Your task to perform on an android device: toggle wifi Image 0: 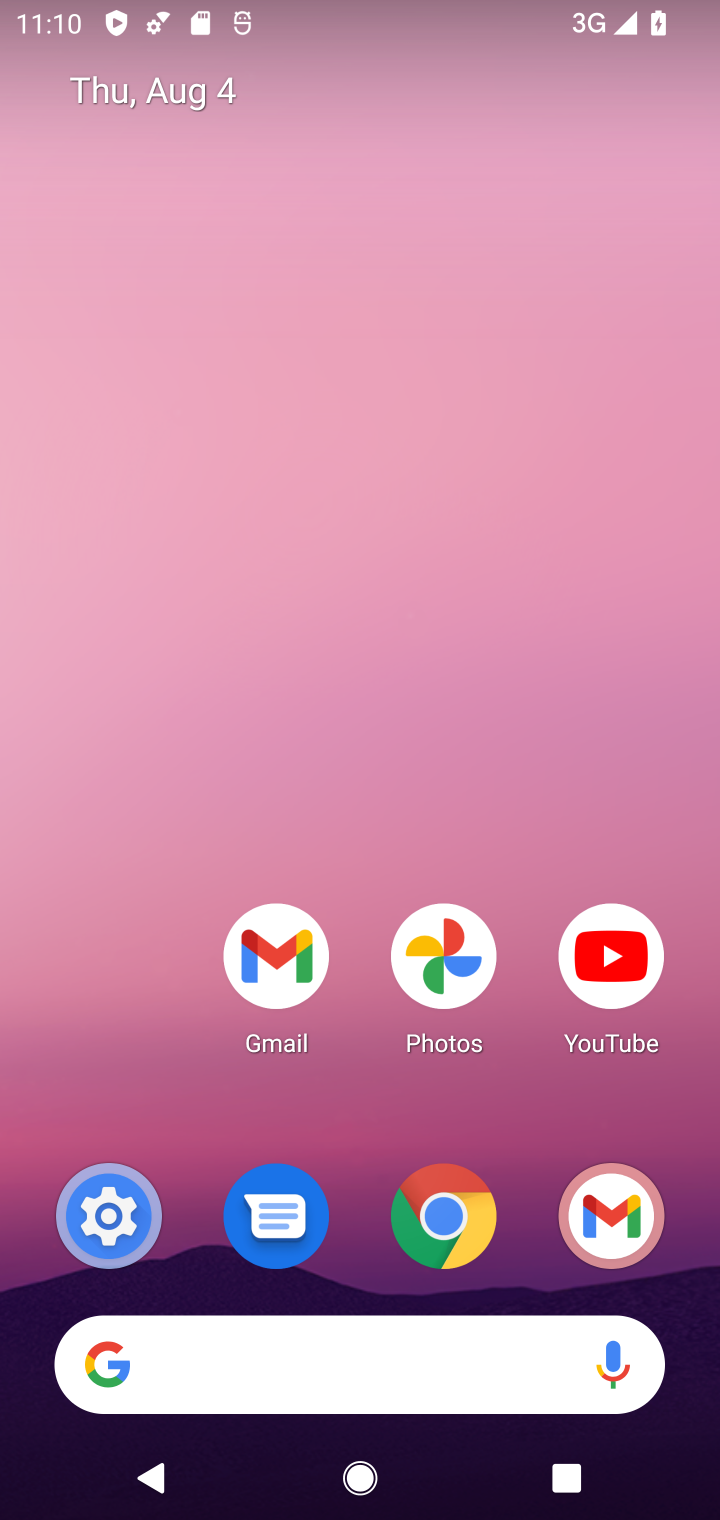
Step 0: drag from (125, 1022) to (303, 0)
Your task to perform on an android device: toggle wifi Image 1: 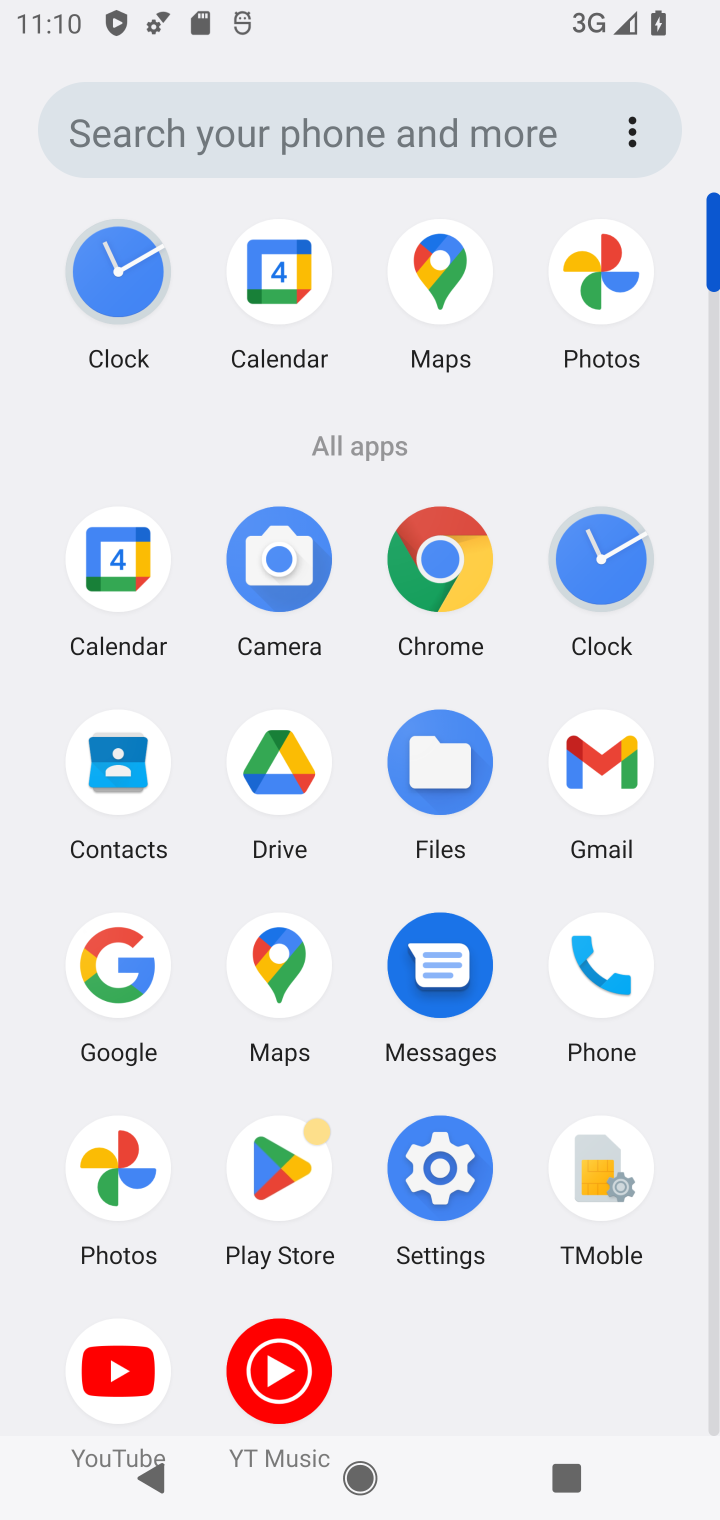
Step 1: click (431, 1160)
Your task to perform on an android device: toggle wifi Image 2: 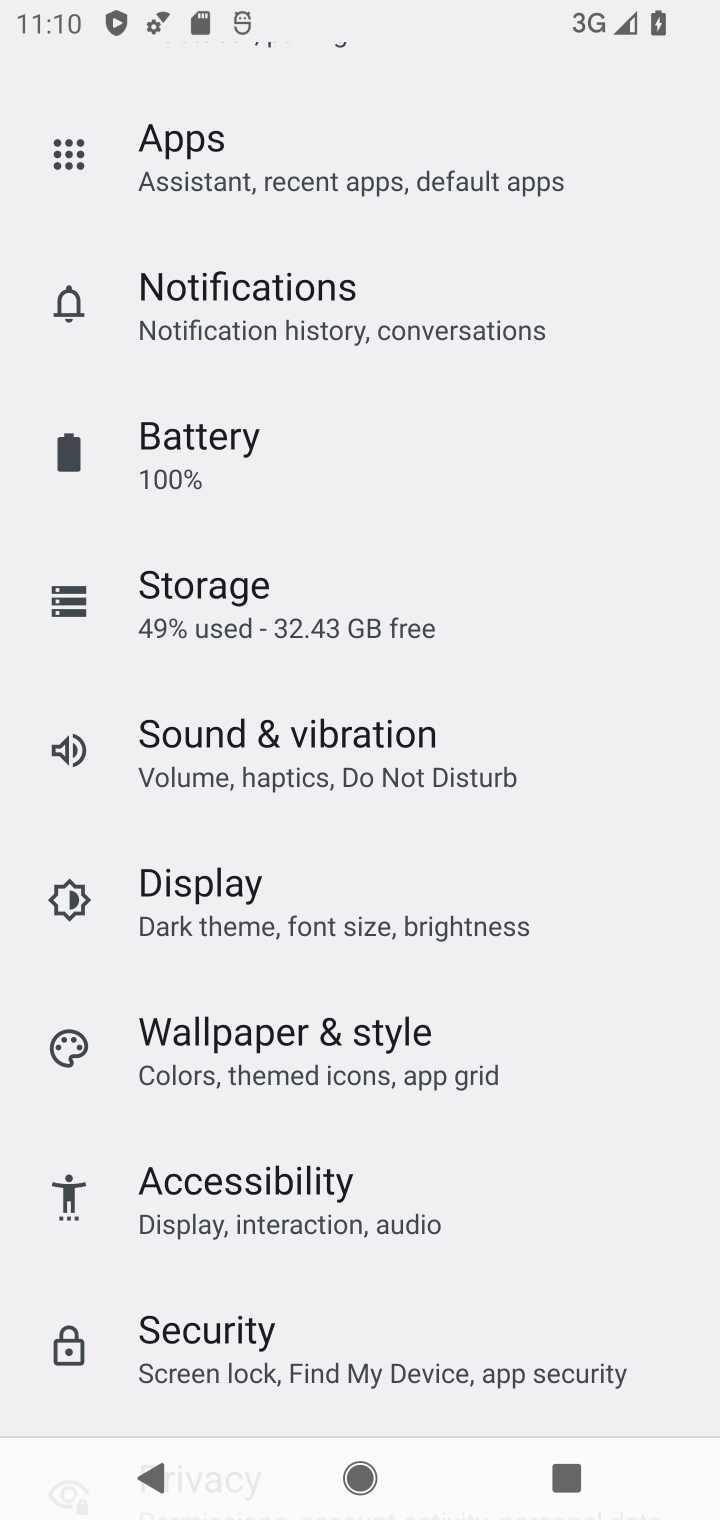
Step 2: drag from (392, 488) to (356, 1367)
Your task to perform on an android device: toggle wifi Image 3: 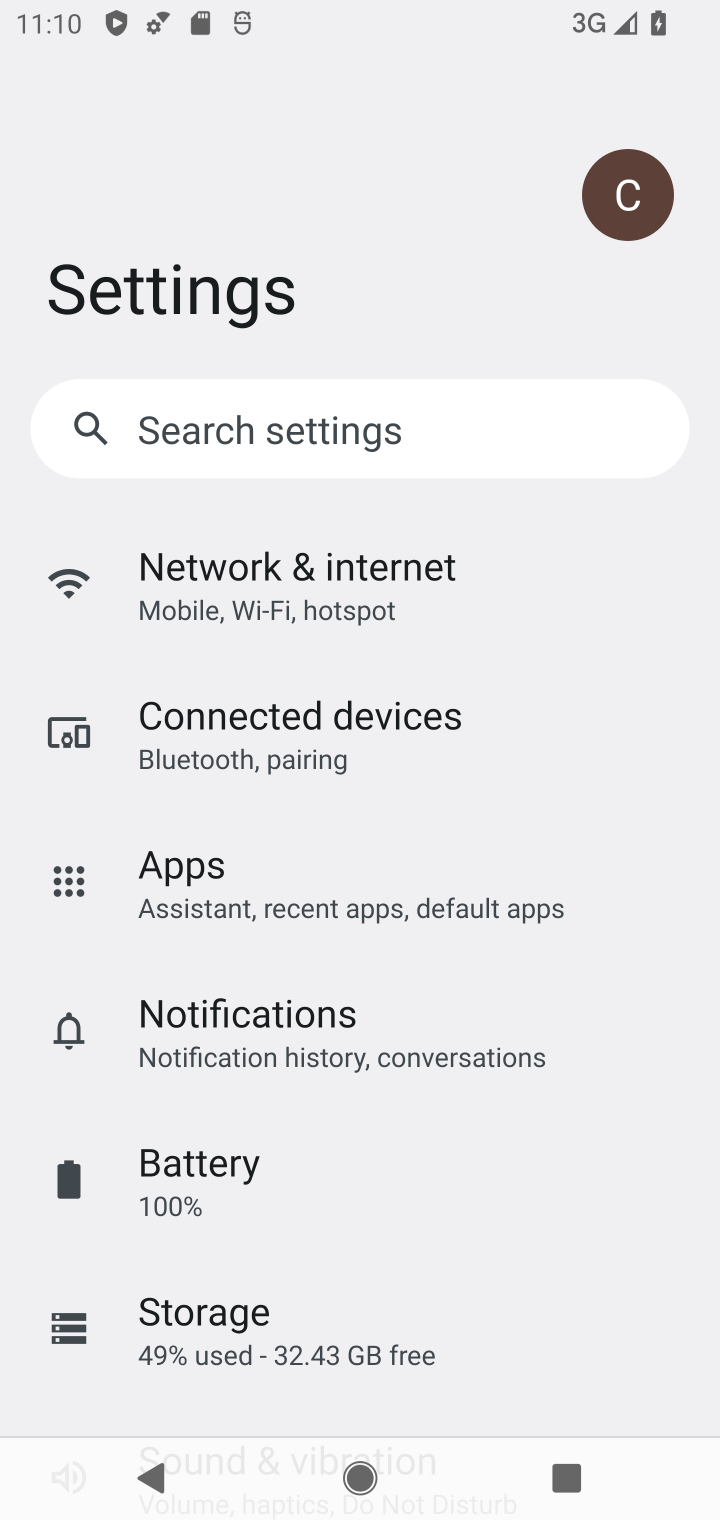
Step 3: click (374, 584)
Your task to perform on an android device: toggle wifi Image 4: 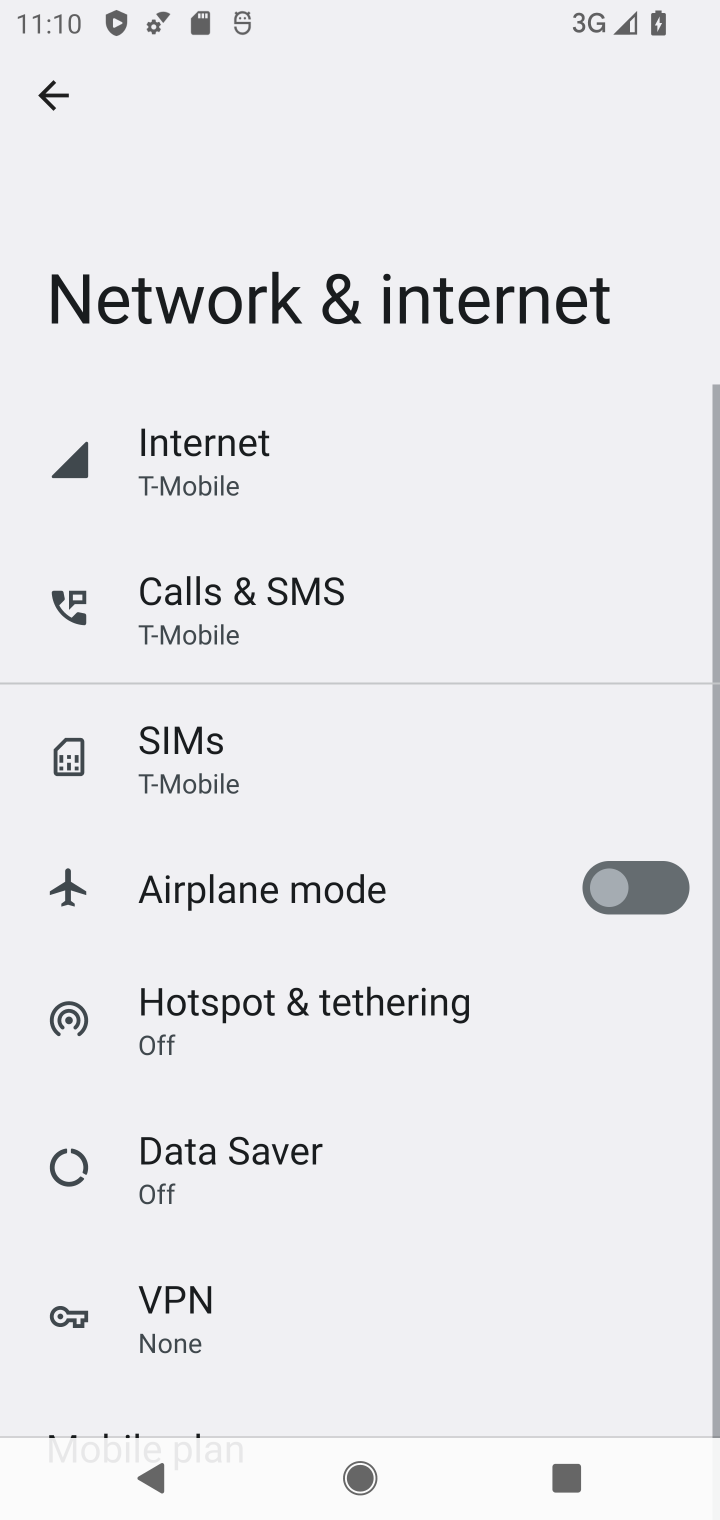
Step 4: click (236, 461)
Your task to perform on an android device: toggle wifi Image 5: 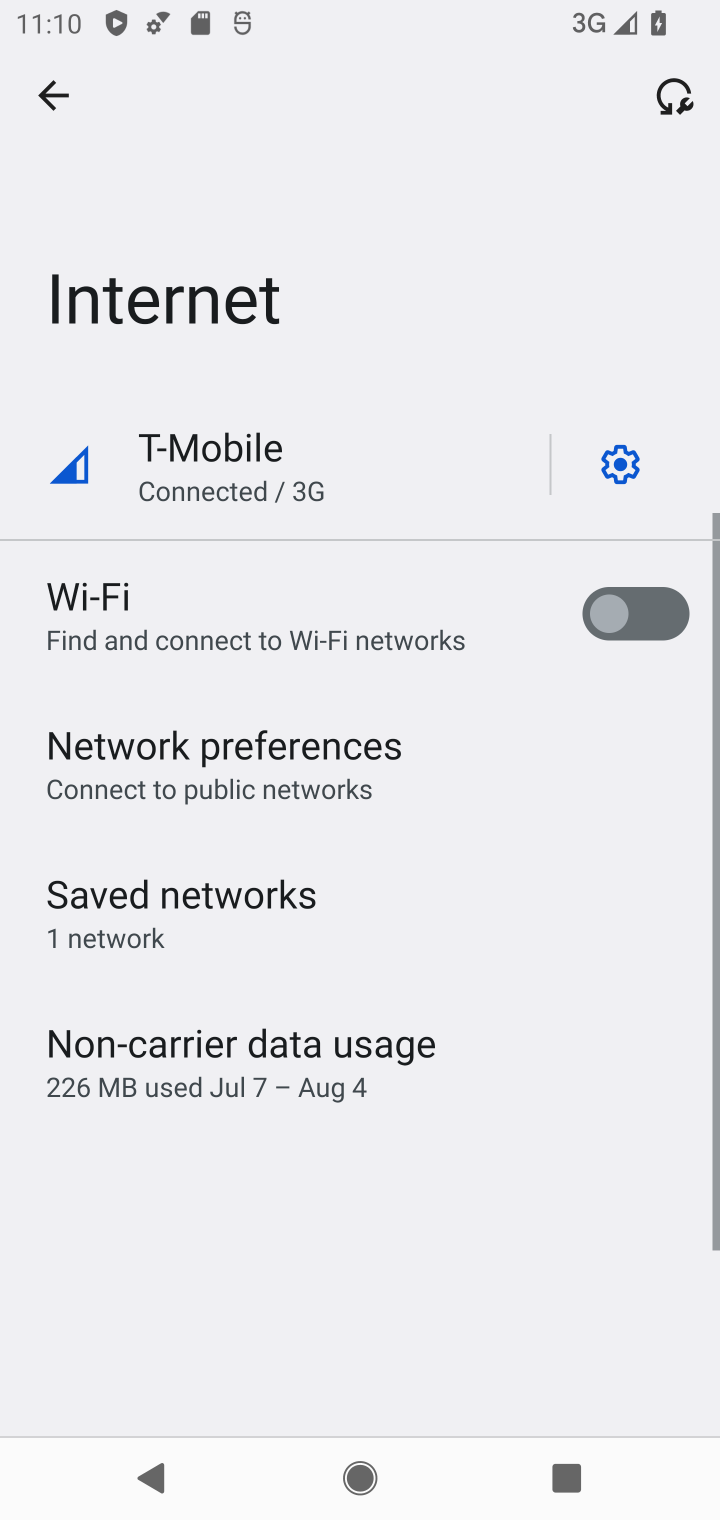
Step 5: click (625, 608)
Your task to perform on an android device: toggle wifi Image 6: 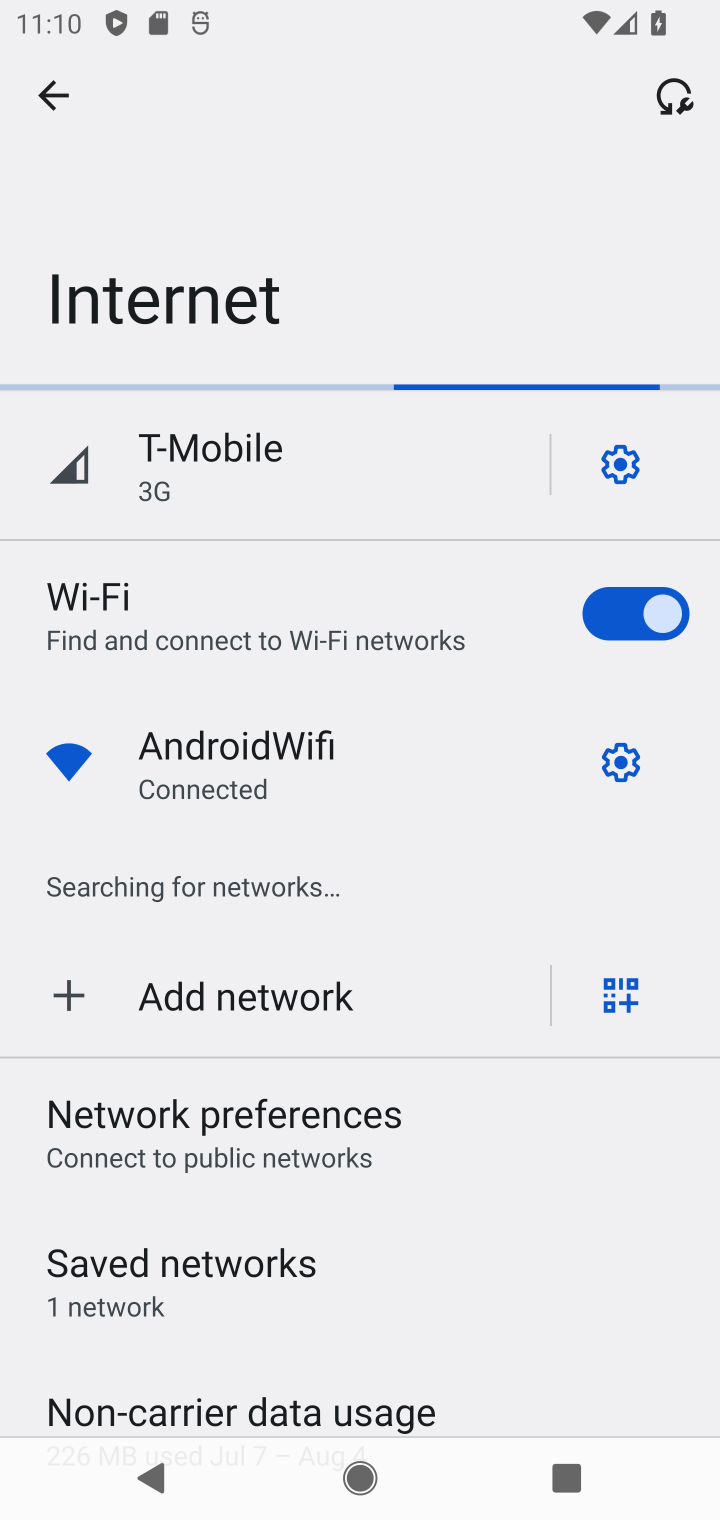
Step 6: task complete